Your task to perform on an android device: turn off translation in the chrome app Image 0: 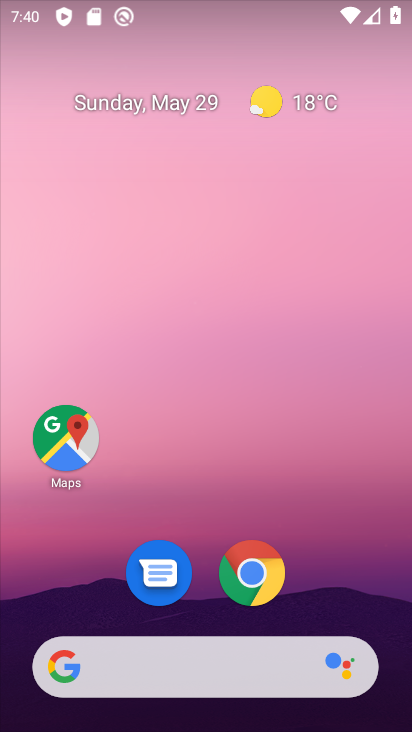
Step 0: click (241, 583)
Your task to perform on an android device: turn off translation in the chrome app Image 1: 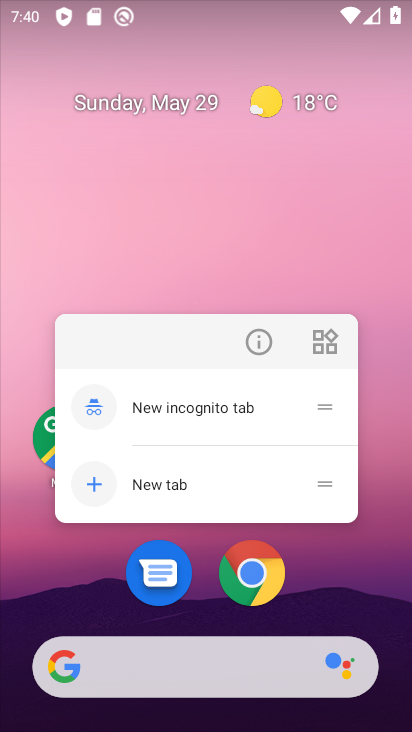
Step 1: click (267, 574)
Your task to perform on an android device: turn off translation in the chrome app Image 2: 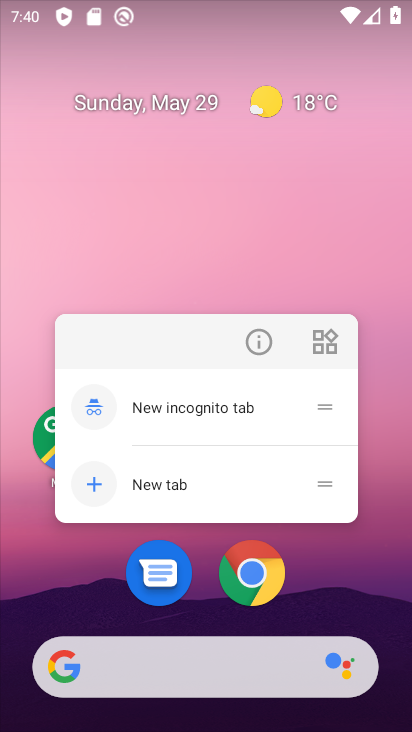
Step 2: click (267, 574)
Your task to perform on an android device: turn off translation in the chrome app Image 3: 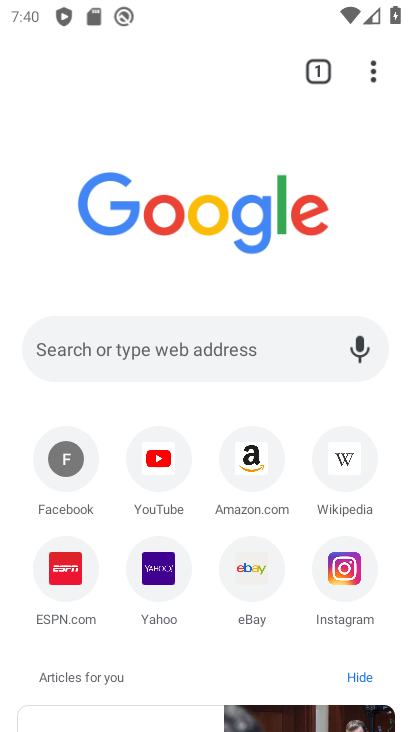
Step 3: drag from (378, 85) to (214, 631)
Your task to perform on an android device: turn off translation in the chrome app Image 4: 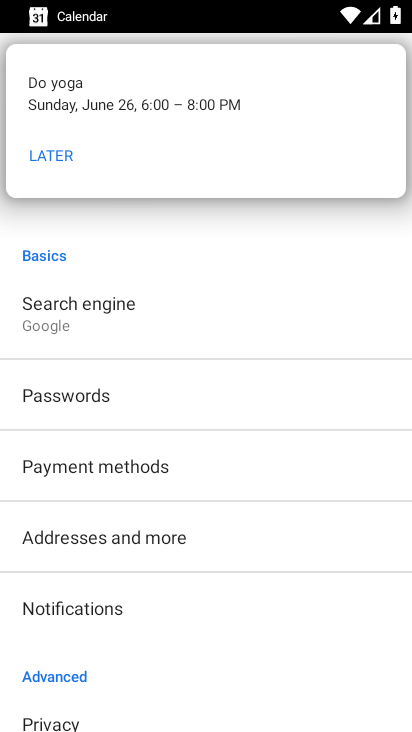
Step 4: drag from (180, 674) to (247, 349)
Your task to perform on an android device: turn off translation in the chrome app Image 5: 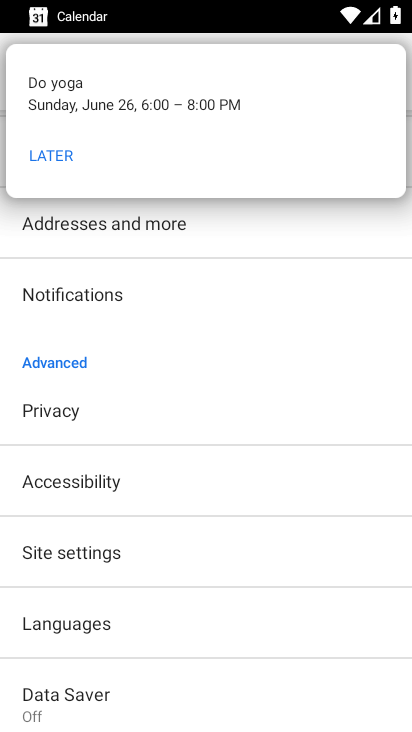
Step 5: click (159, 618)
Your task to perform on an android device: turn off translation in the chrome app Image 6: 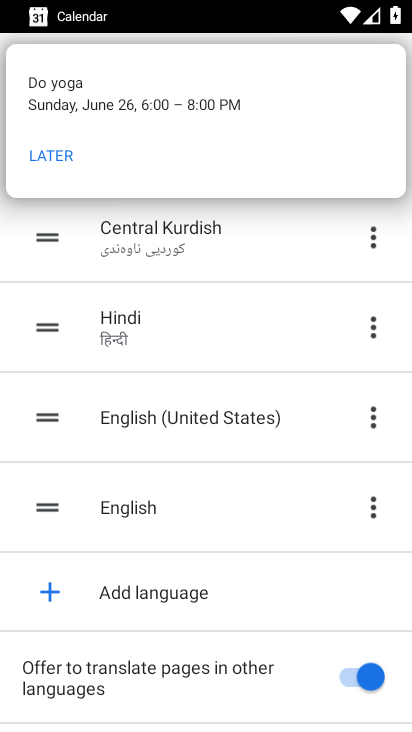
Step 6: click (360, 690)
Your task to perform on an android device: turn off translation in the chrome app Image 7: 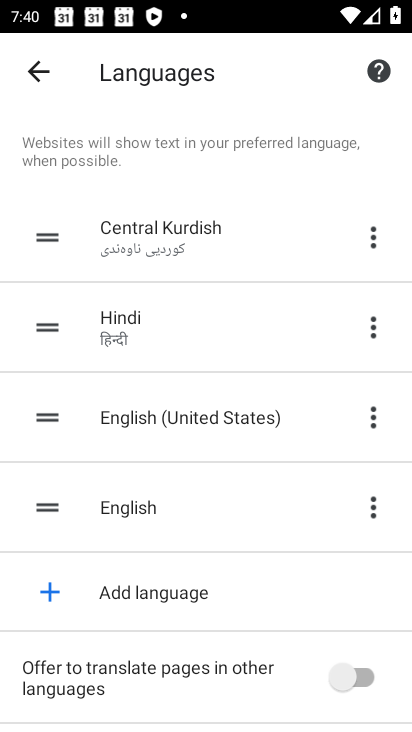
Step 7: task complete